Your task to perform on an android device: open the mobile data screen to see how much data has been used Image 0: 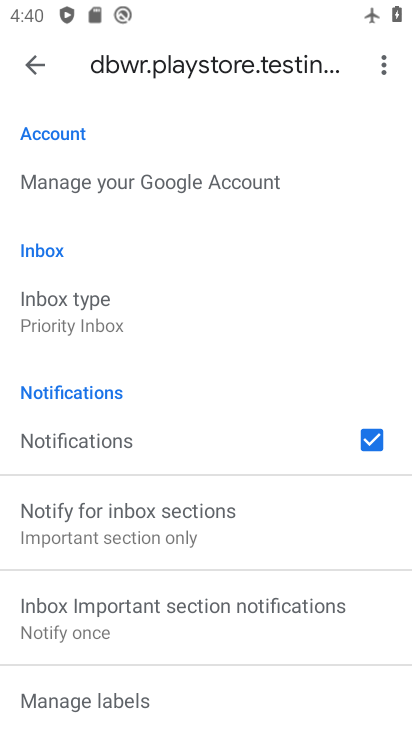
Step 0: press home button
Your task to perform on an android device: open the mobile data screen to see how much data has been used Image 1: 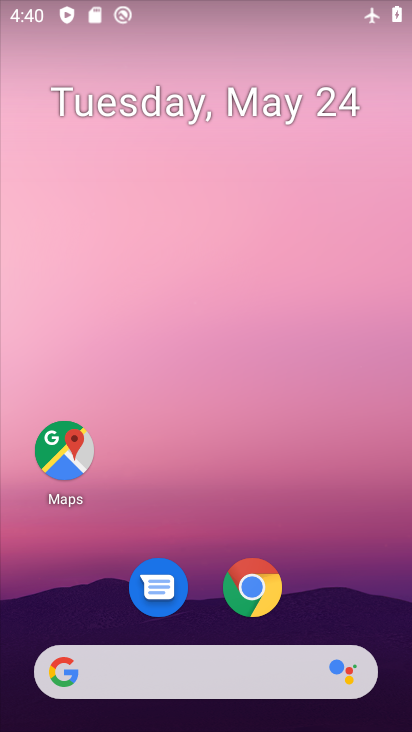
Step 1: drag from (254, 139) to (225, 44)
Your task to perform on an android device: open the mobile data screen to see how much data has been used Image 2: 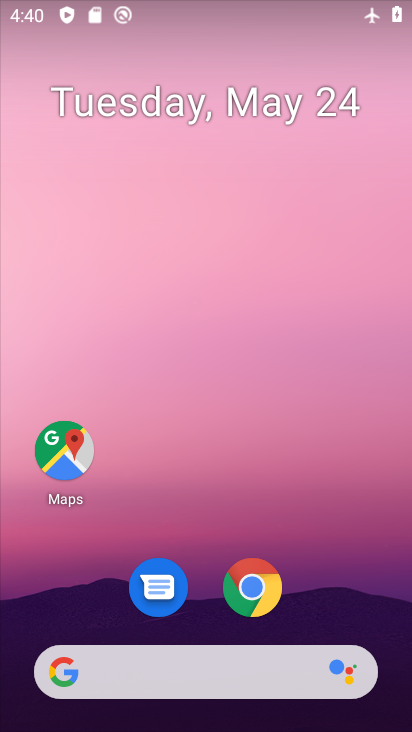
Step 2: drag from (320, 532) to (193, 20)
Your task to perform on an android device: open the mobile data screen to see how much data has been used Image 3: 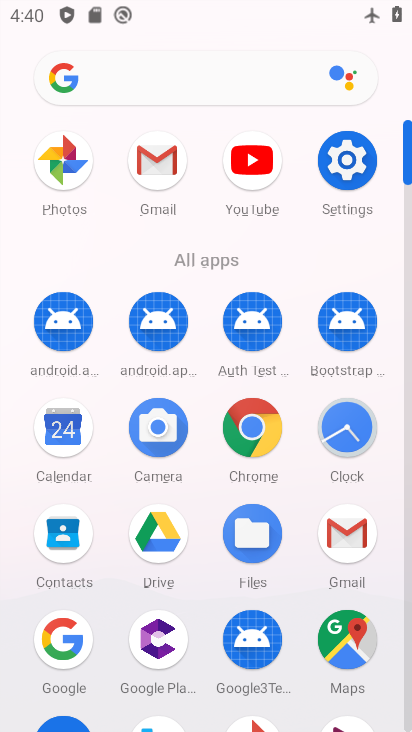
Step 3: click (346, 162)
Your task to perform on an android device: open the mobile data screen to see how much data has been used Image 4: 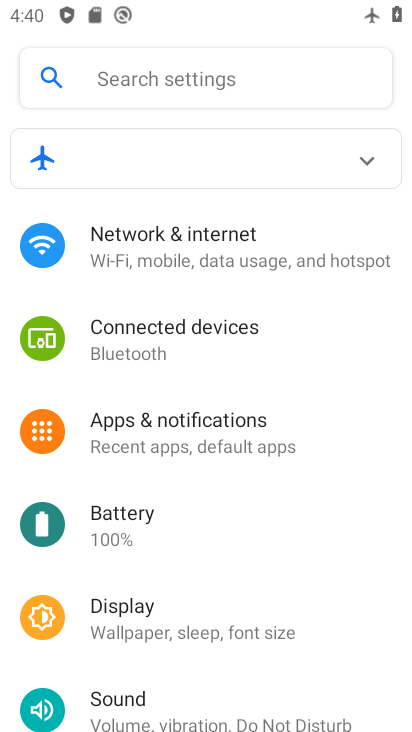
Step 4: click (190, 247)
Your task to perform on an android device: open the mobile data screen to see how much data has been used Image 5: 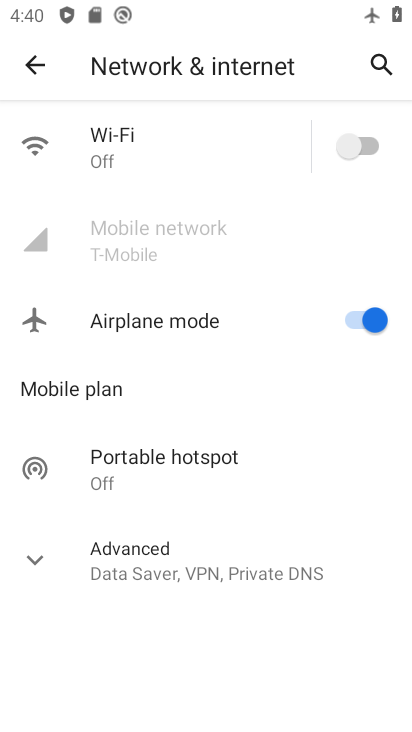
Step 5: task complete